Your task to perform on an android device: create a new album in the google photos Image 0: 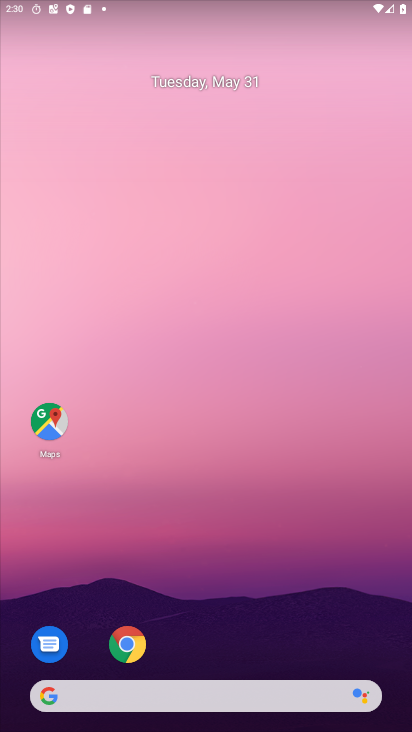
Step 0: drag from (376, 492) to (314, 75)
Your task to perform on an android device: create a new album in the google photos Image 1: 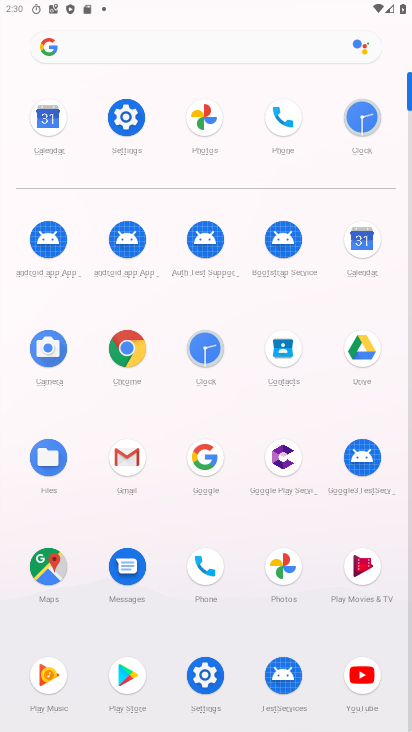
Step 1: click (296, 561)
Your task to perform on an android device: create a new album in the google photos Image 2: 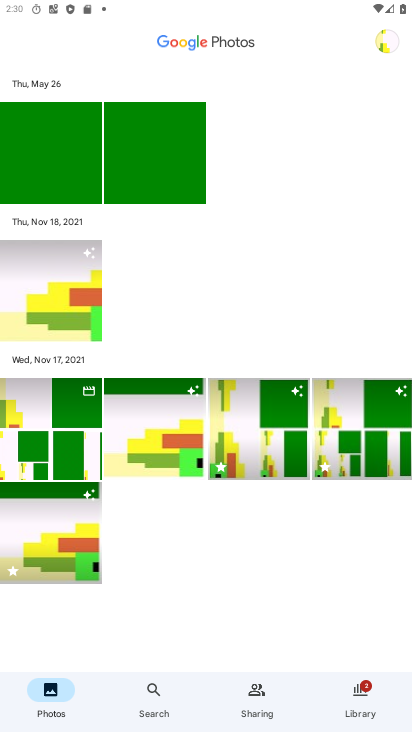
Step 2: click (388, 37)
Your task to perform on an android device: create a new album in the google photos Image 3: 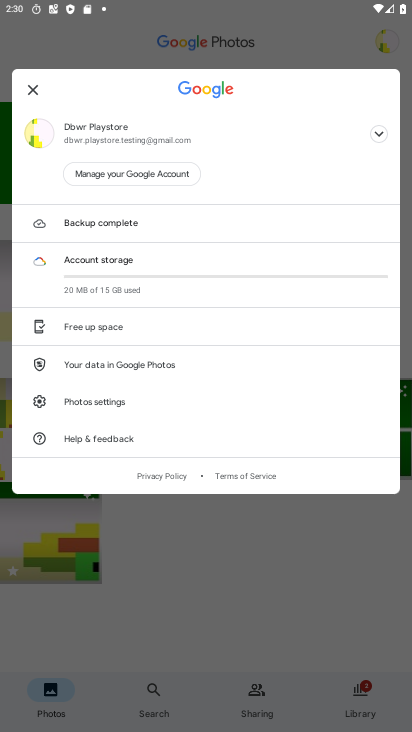
Step 3: task complete